Your task to perform on an android device: toggle airplane mode Image 0: 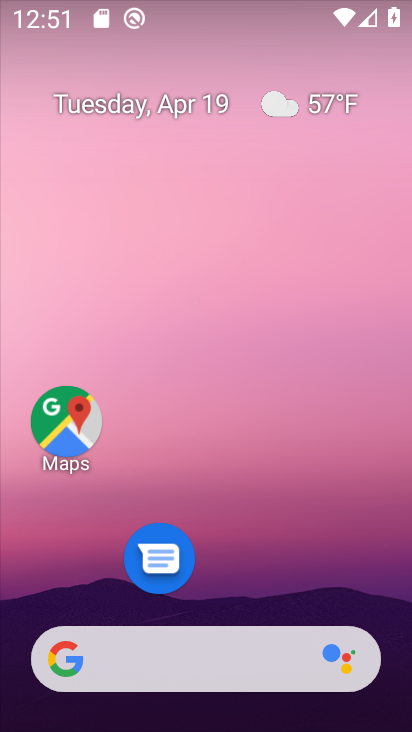
Step 0: drag from (240, 556) to (217, 122)
Your task to perform on an android device: toggle airplane mode Image 1: 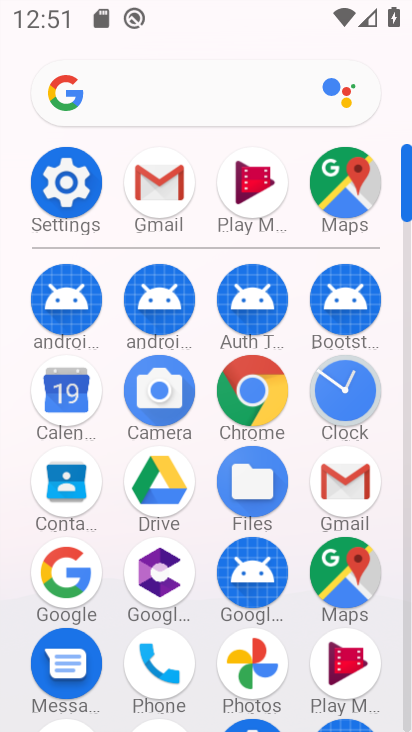
Step 1: click (73, 196)
Your task to perform on an android device: toggle airplane mode Image 2: 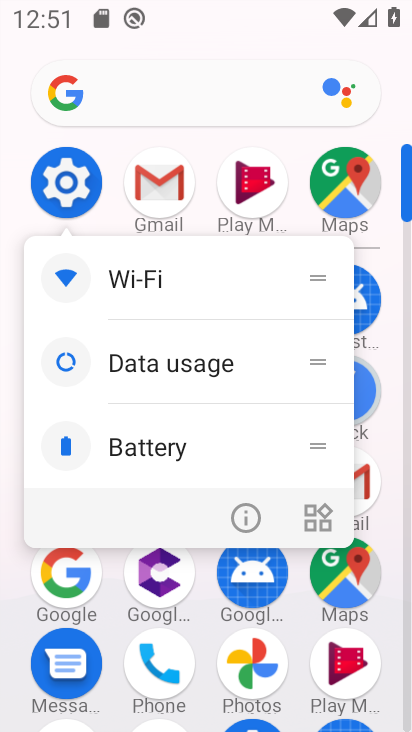
Step 2: click (65, 195)
Your task to perform on an android device: toggle airplane mode Image 3: 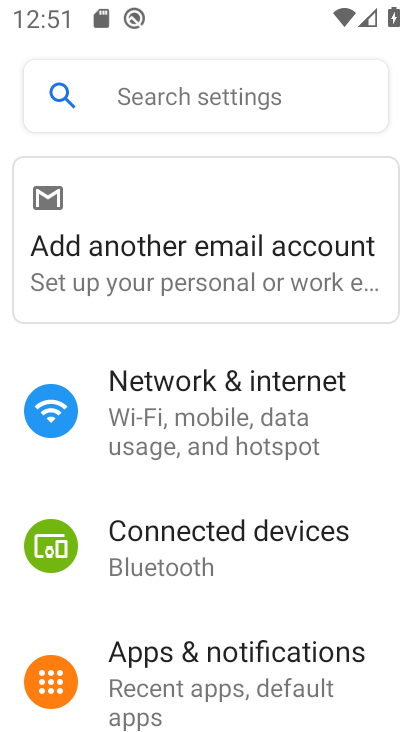
Step 3: click (144, 402)
Your task to perform on an android device: toggle airplane mode Image 4: 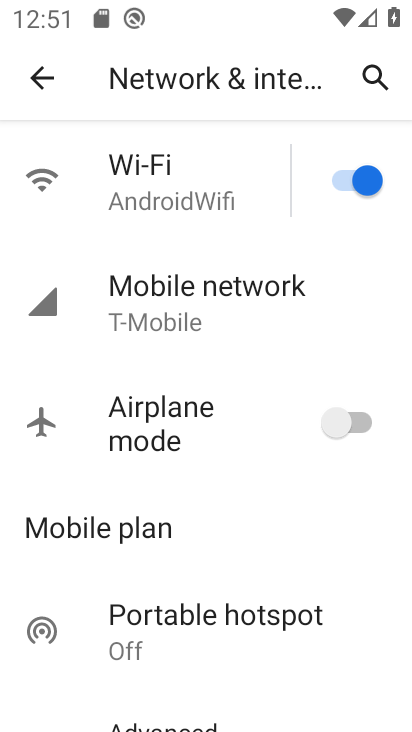
Step 4: click (351, 427)
Your task to perform on an android device: toggle airplane mode Image 5: 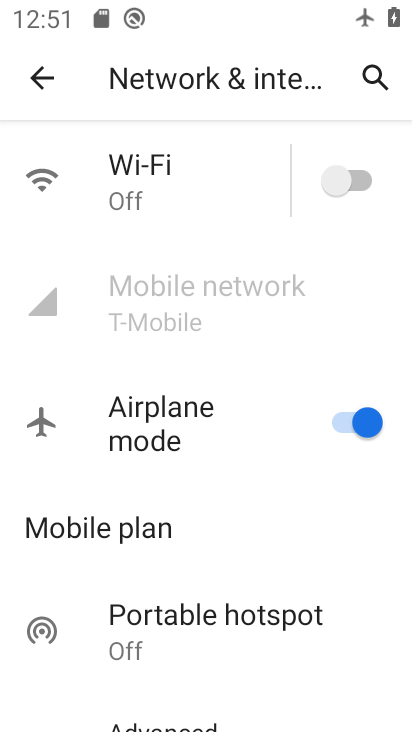
Step 5: task complete